Your task to perform on an android device: Open Chrome and go to the settings page Image 0: 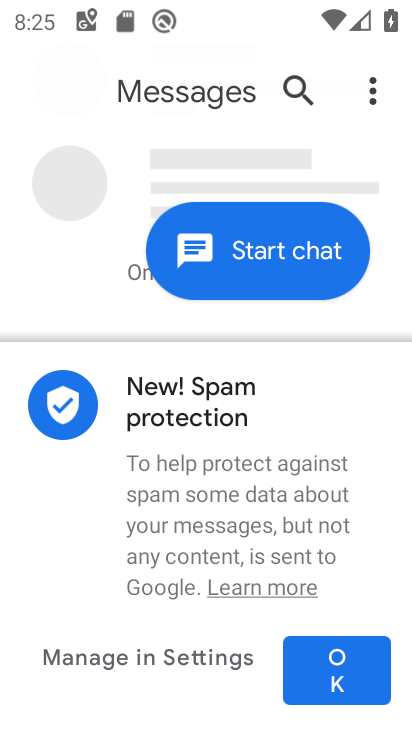
Step 0: press home button
Your task to perform on an android device: Open Chrome and go to the settings page Image 1: 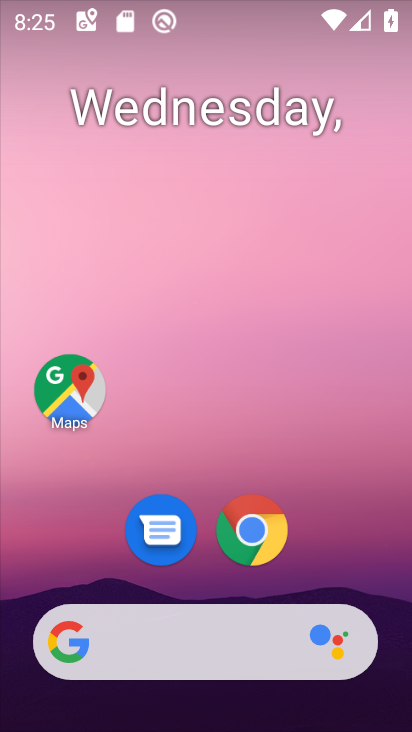
Step 1: drag from (393, 626) to (292, 87)
Your task to perform on an android device: Open Chrome and go to the settings page Image 2: 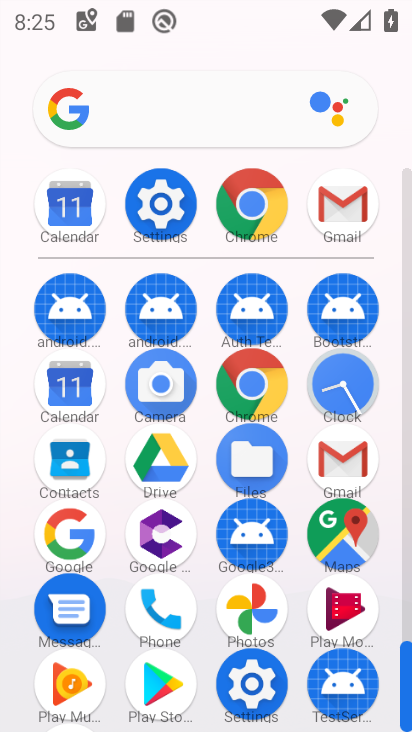
Step 2: click (252, 388)
Your task to perform on an android device: Open Chrome and go to the settings page Image 3: 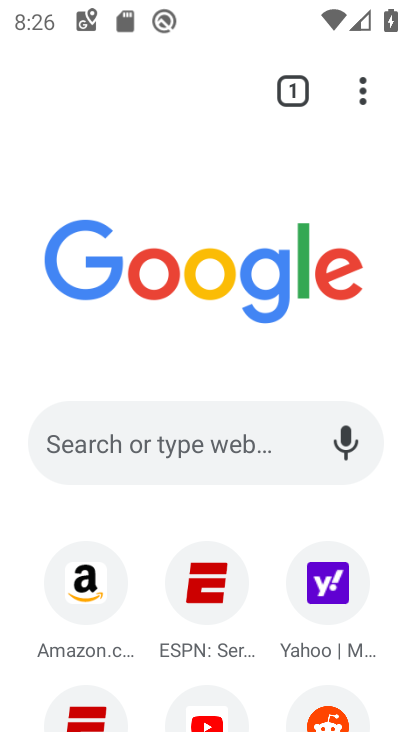
Step 3: click (372, 85)
Your task to perform on an android device: Open Chrome and go to the settings page Image 4: 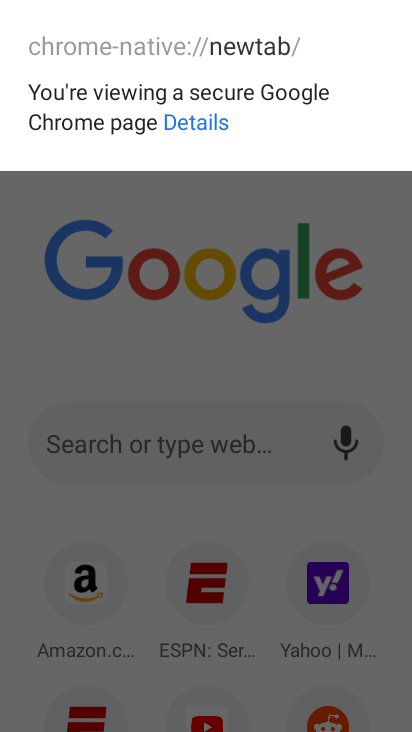
Step 4: click (291, 264)
Your task to perform on an android device: Open Chrome and go to the settings page Image 5: 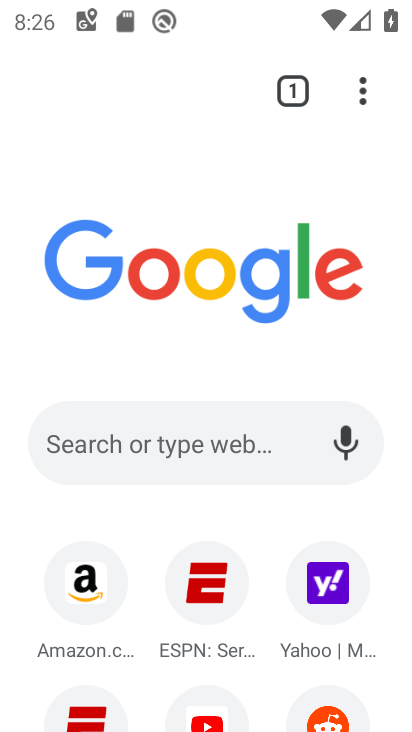
Step 5: click (360, 83)
Your task to perform on an android device: Open Chrome and go to the settings page Image 6: 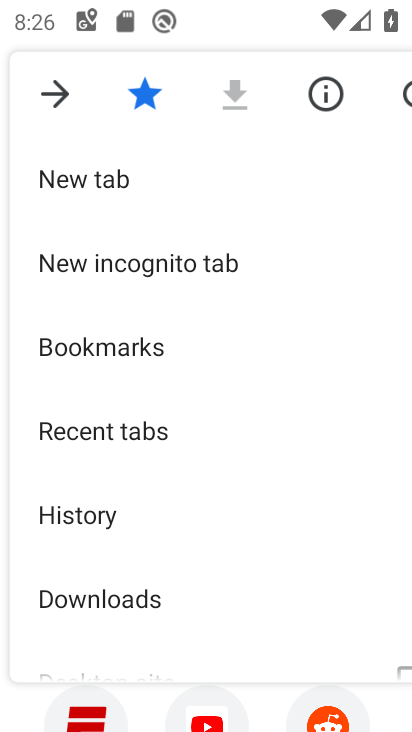
Step 6: drag from (184, 588) to (160, 220)
Your task to perform on an android device: Open Chrome and go to the settings page Image 7: 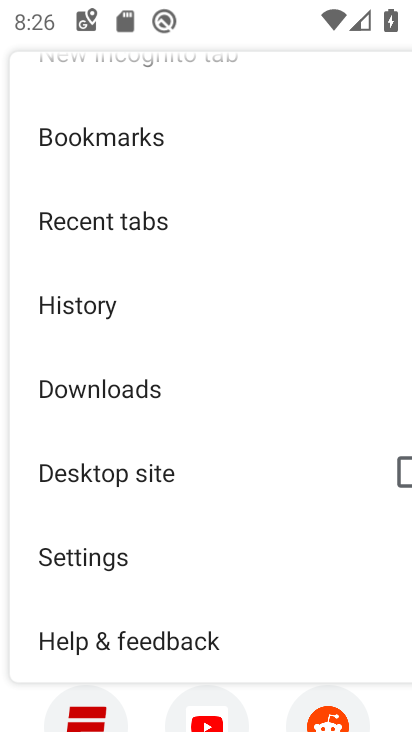
Step 7: click (169, 564)
Your task to perform on an android device: Open Chrome and go to the settings page Image 8: 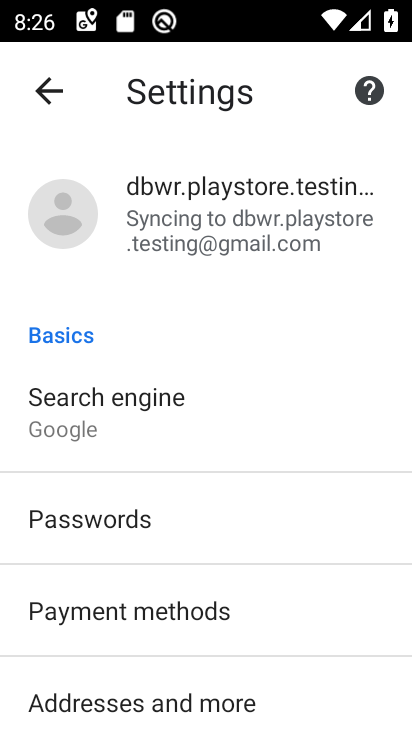
Step 8: task complete